Your task to perform on an android device: visit the assistant section in the google photos Image 0: 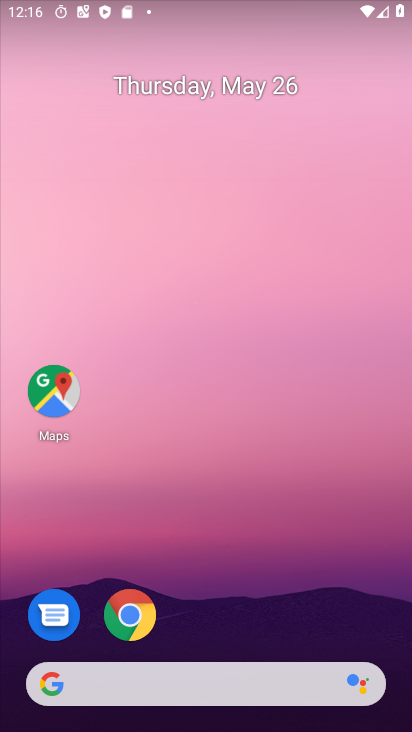
Step 0: drag from (239, 629) to (203, 224)
Your task to perform on an android device: visit the assistant section in the google photos Image 1: 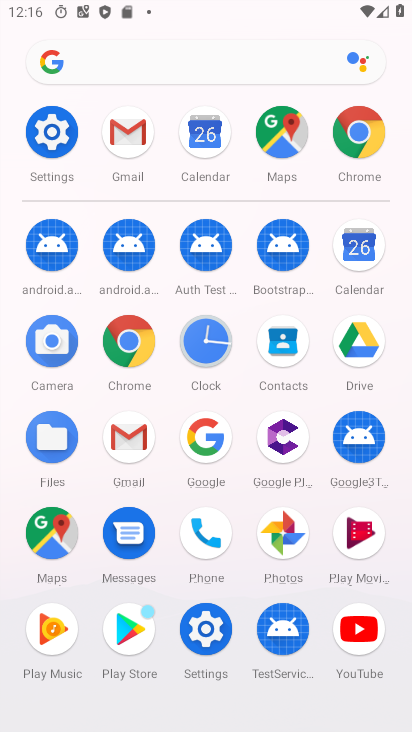
Step 1: click (283, 527)
Your task to perform on an android device: visit the assistant section in the google photos Image 2: 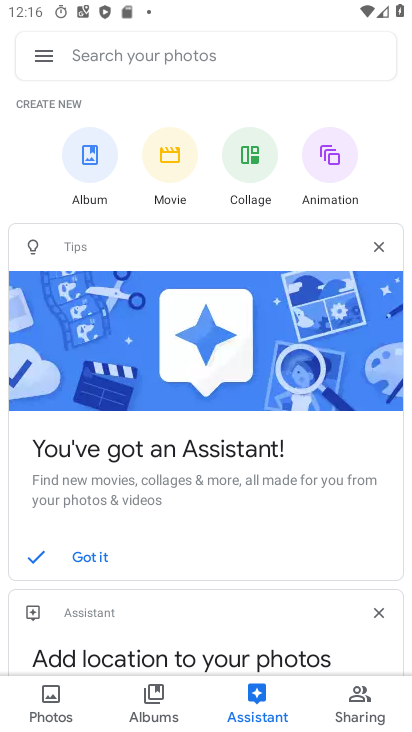
Step 2: task complete